Your task to perform on an android device: remove spam from my inbox in the gmail app Image 0: 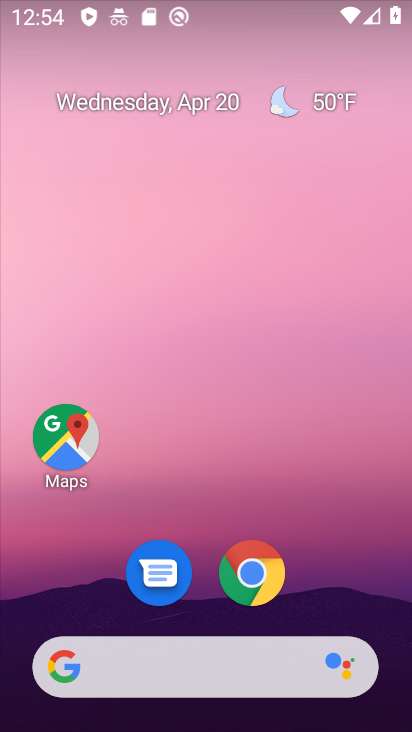
Step 0: drag from (369, 597) to (376, 31)
Your task to perform on an android device: remove spam from my inbox in the gmail app Image 1: 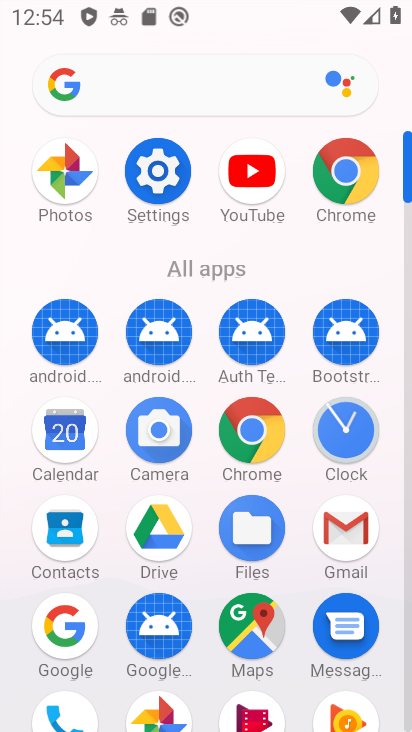
Step 1: click (346, 534)
Your task to perform on an android device: remove spam from my inbox in the gmail app Image 2: 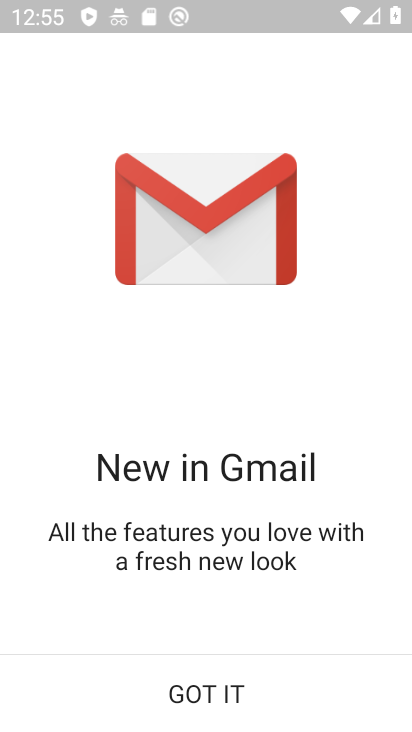
Step 2: click (214, 690)
Your task to perform on an android device: remove spam from my inbox in the gmail app Image 3: 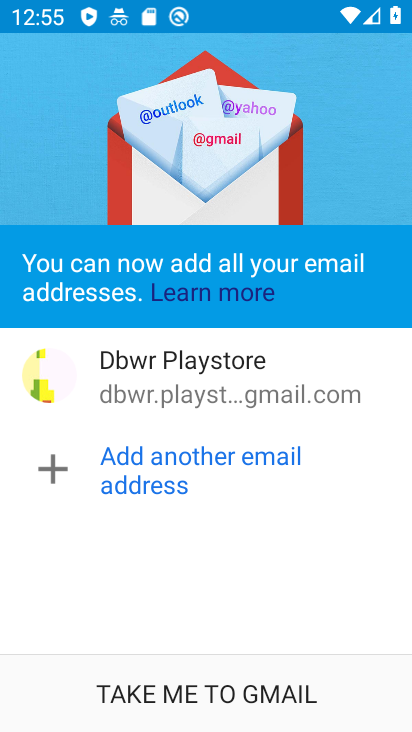
Step 3: click (209, 687)
Your task to perform on an android device: remove spam from my inbox in the gmail app Image 4: 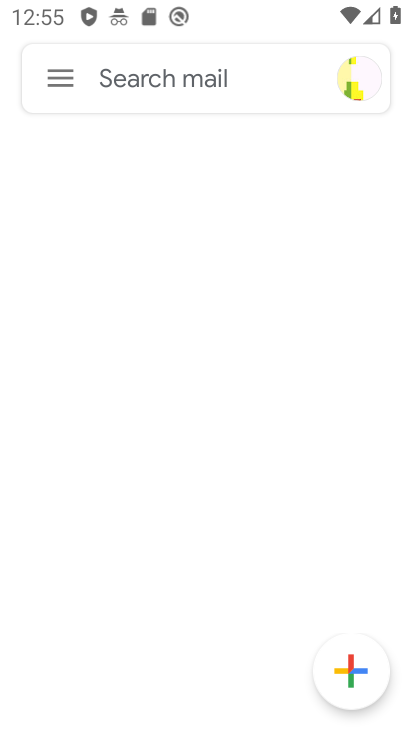
Step 4: click (57, 79)
Your task to perform on an android device: remove spam from my inbox in the gmail app Image 5: 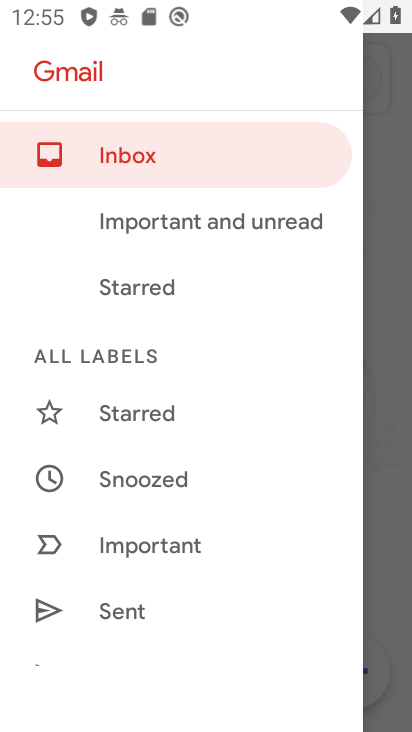
Step 5: drag from (174, 475) to (178, 217)
Your task to perform on an android device: remove spam from my inbox in the gmail app Image 6: 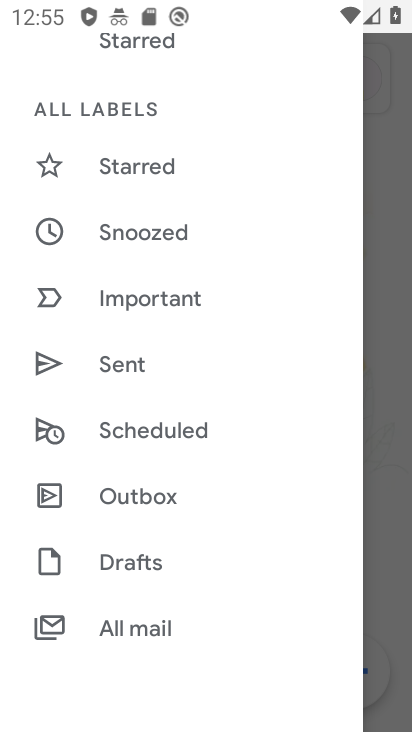
Step 6: drag from (167, 561) to (172, 250)
Your task to perform on an android device: remove spam from my inbox in the gmail app Image 7: 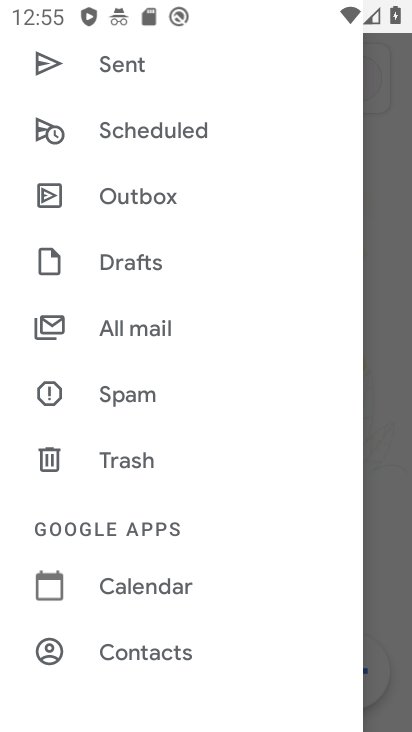
Step 7: click (119, 403)
Your task to perform on an android device: remove spam from my inbox in the gmail app Image 8: 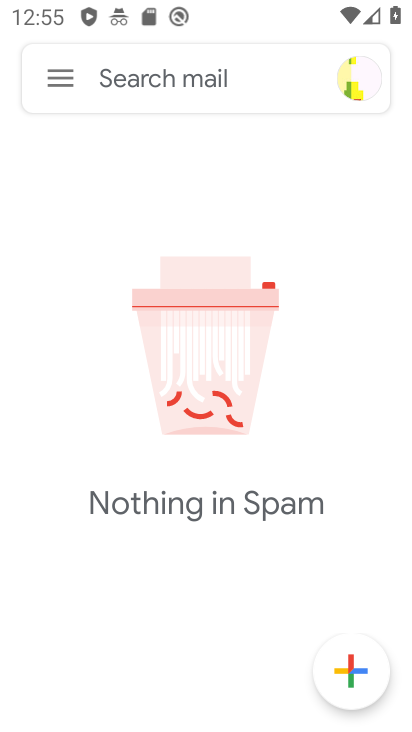
Step 8: task complete